Your task to perform on an android device: find snoozed emails in the gmail app Image 0: 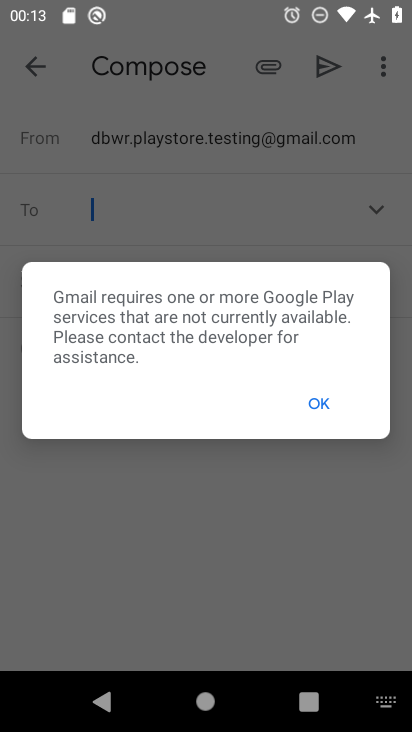
Step 0: press home button
Your task to perform on an android device: find snoozed emails in the gmail app Image 1: 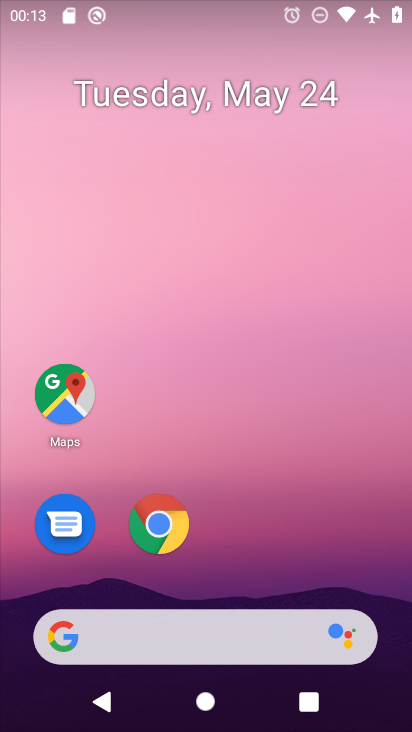
Step 1: drag from (239, 577) to (239, 183)
Your task to perform on an android device: find snoozed emails in the gmail app Image 2: 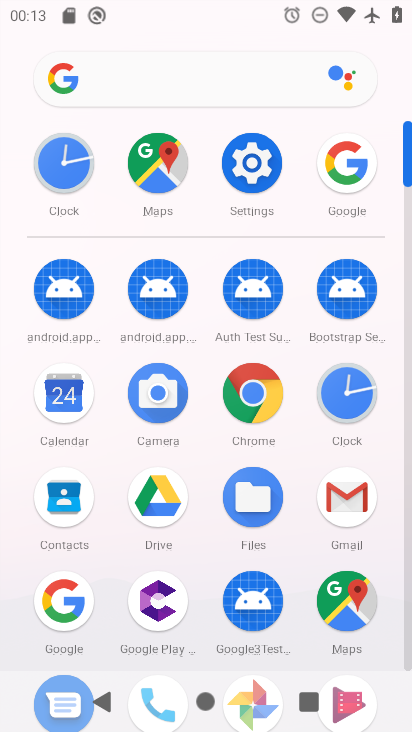
Step 2: click (327, 498)
Your task to perform on an android device: find snoozed emails in the gmail app Image 3: 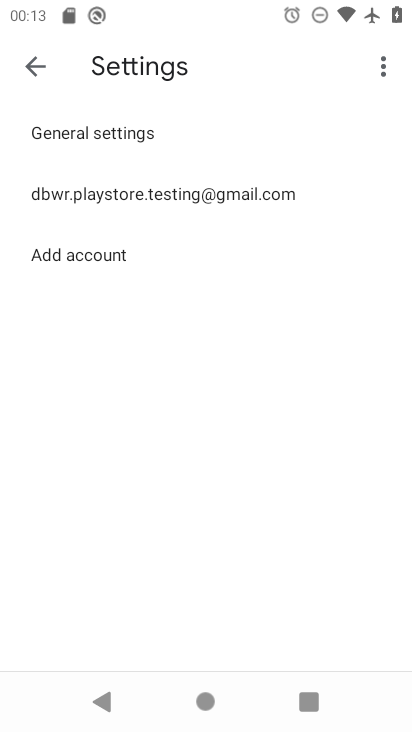
Step 3: click (26, 47)
Your task to perform on an android device: find snoozed emails in the gmail app Image 4: 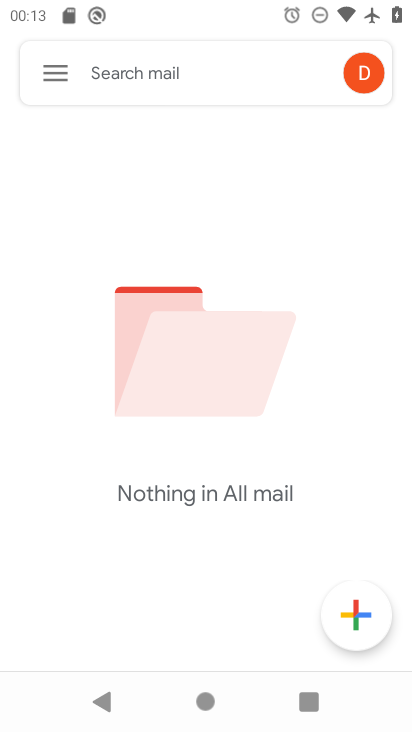
Step 4: click (45, 59)
Your task to perform on an android device: find snoozed emails in the gmail app Image 5: 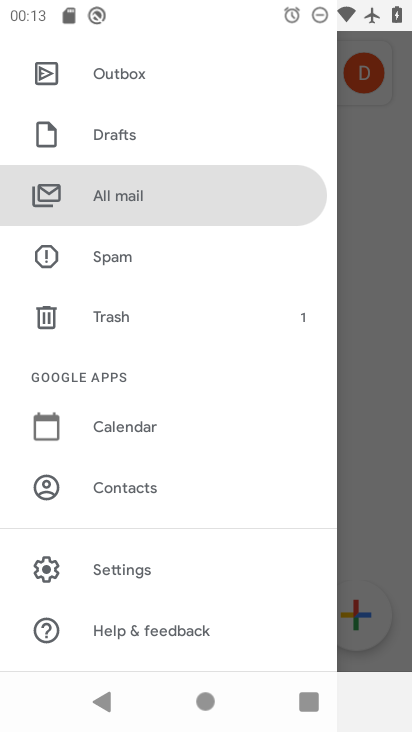
Step 5: drag from (165, 144) to (202, 485)
Your task to perform on an android device: find snoozed emails in the gmail app Image 6: 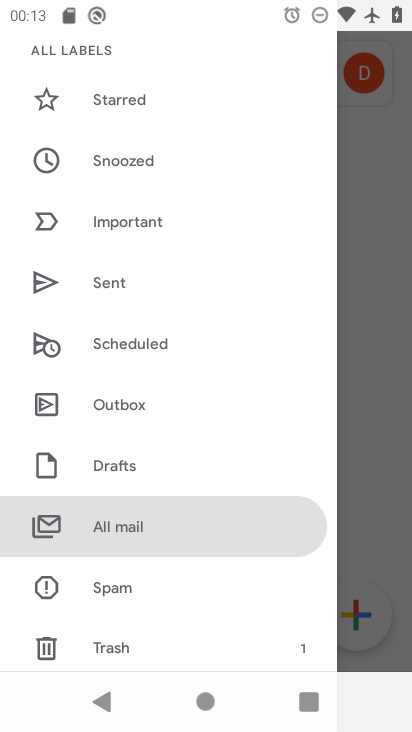
Step 6: click (152, 140)
Your task to perform on an android device: find snoozed emails in the gmail app Image 7: 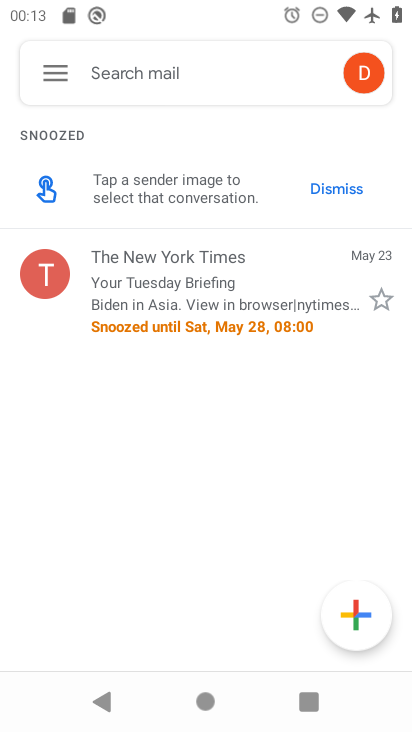
Step 7: task complete